Your task to perform on an android device: change the clock display to analog Image 0: 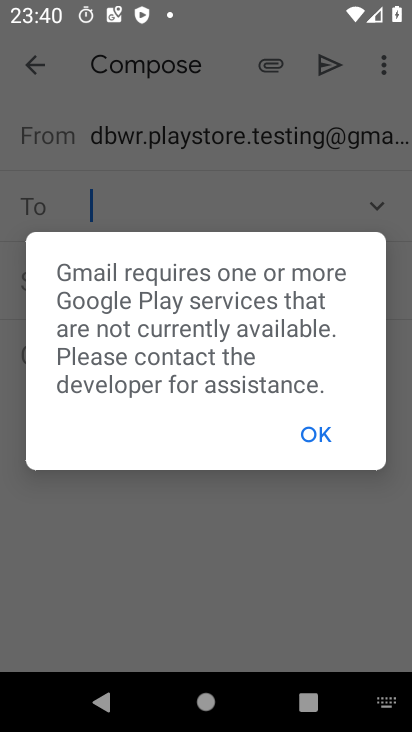
Step 0: press home button
Your task to perform on an android device: change the clock display to analog Image 1: 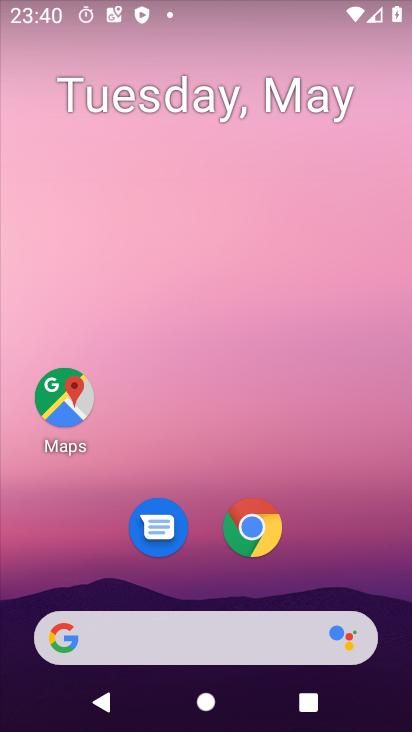
Step 1: drag from (224, 565) to (250, 231)
Your task to perform on an android device: change the clock display to analog Image 2: 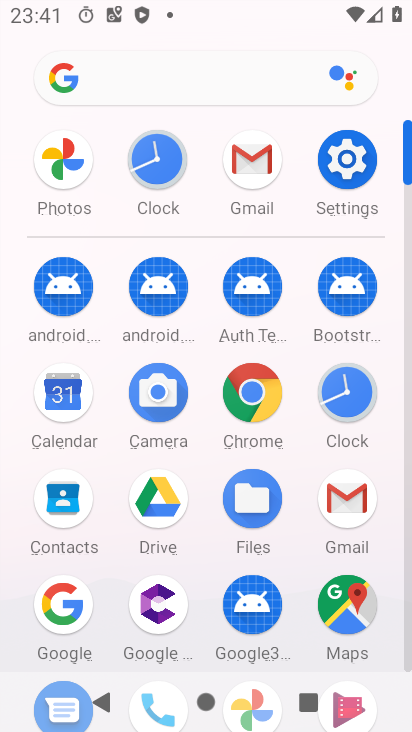
Step 2: drag from (199, 575) to (195, 193)
Your task to perform on an android device: change the clock display to analog Image 3: 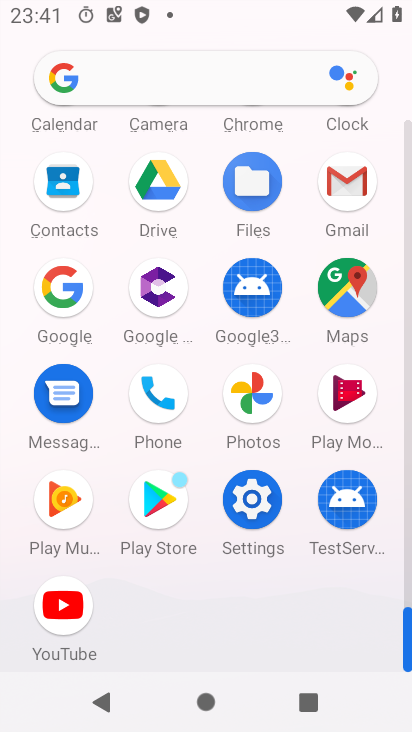
Step 3: drag from (206, 579) to (202, 327)
Your task to perform on an android device: change the clock display to analog Image 4: 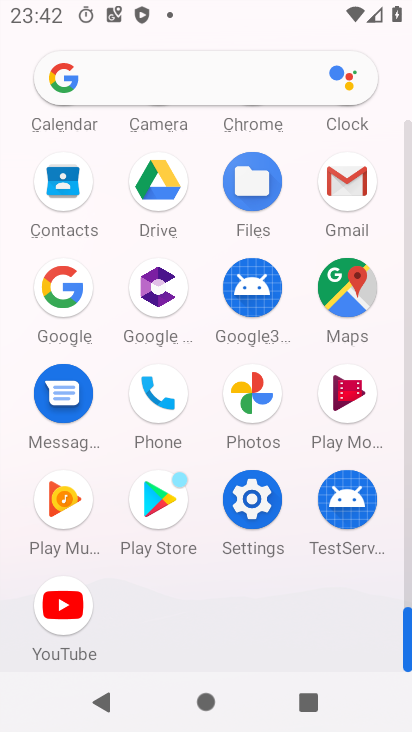
Step 4: drag from (220, 460) to (231, 234)
Your task to perform on an android device: change the clock display to analog Image 5: 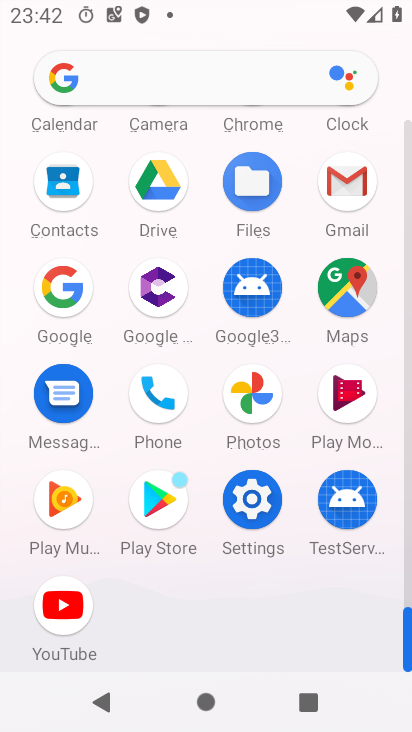
Step 5: drag from (213, 254) to (231, 621)
Your task to perform on an android device: change the clock display to analog Image 6: 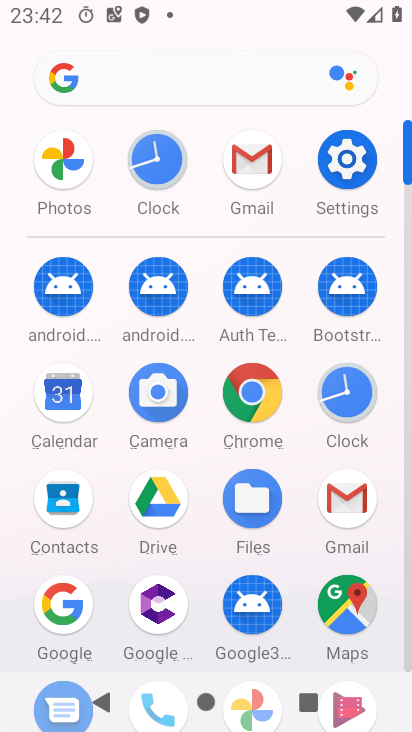
Step 6: drag from (199, 463) to (217, 322)
Your task to perform on an android device: change the clock display to analog Image 7: 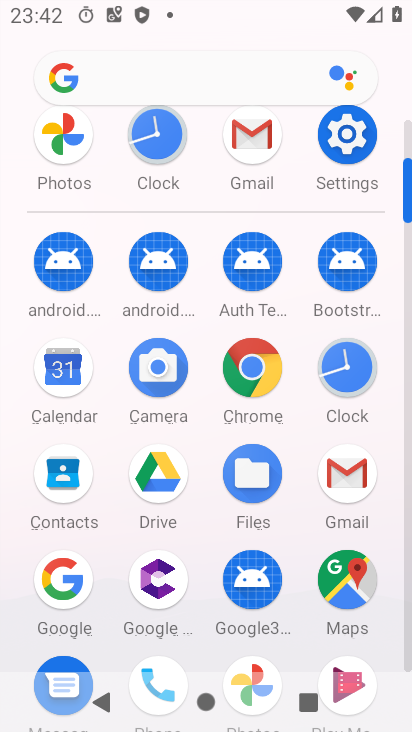
Step 7: click (343, 372)
Your task to perform on an android device: change the clock display to analog Image 8: 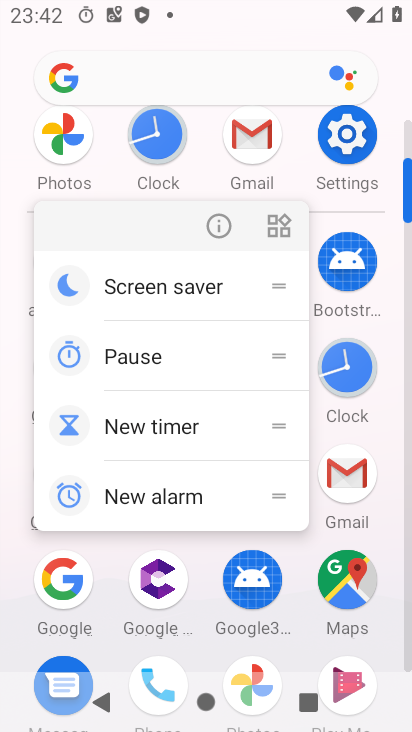
Step 8: click (217, 216)
Your task to perform on an android device: change the clock display to analog Image 9: 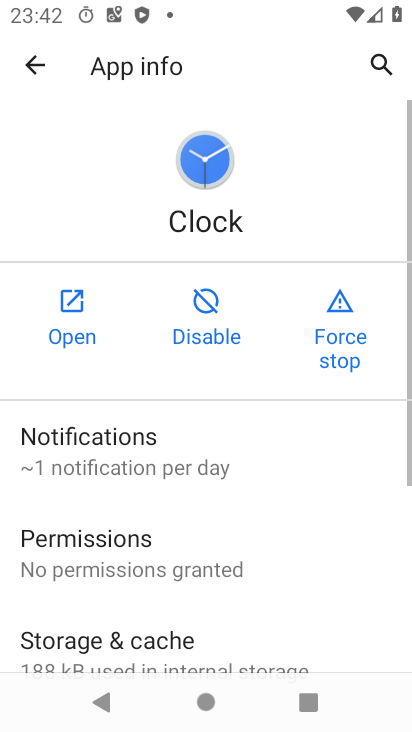
Step 9: click (70, 341)
Your task to perform on an android device: change the clock display to analog Image 10: 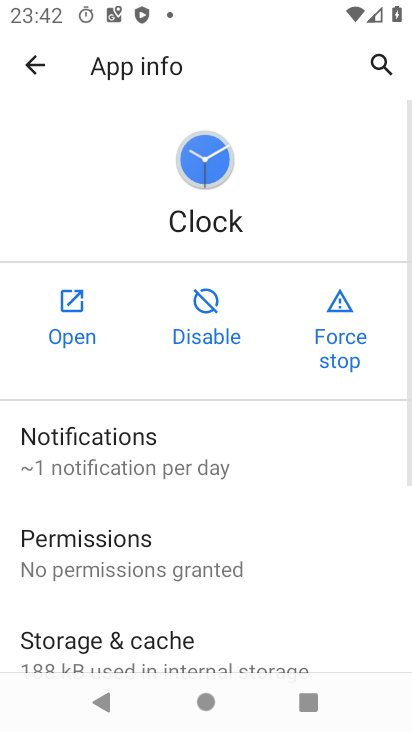
Step 10: click (70, 341)
Your task to perform on an android device: change the clock display to analog Image 11: 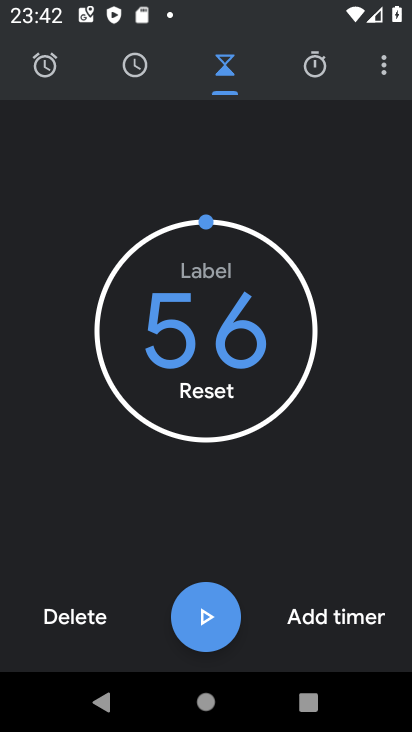
Step 11: click (386, 67)
Your task to perform on an android device: change the clock display to analog Image 12: 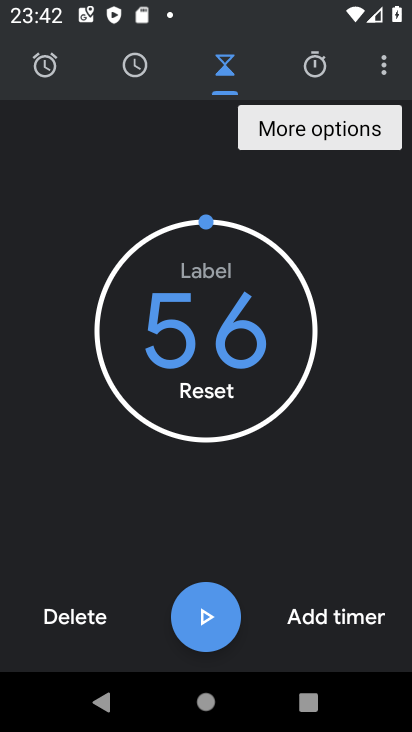
Step 12: click (385, 65)
Your task to perform on an android device: change the clock display to analog Image 13: 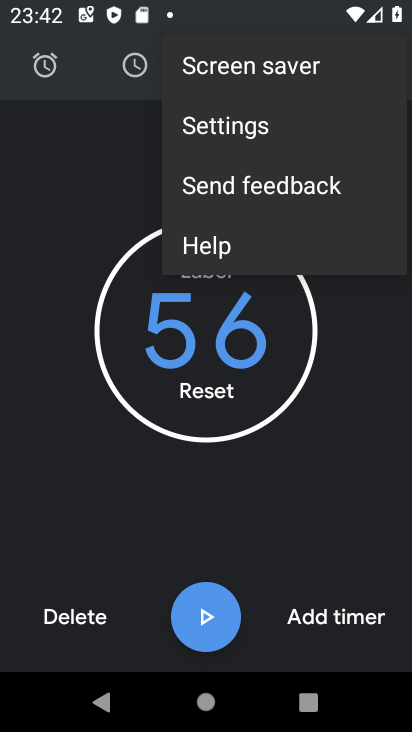
Step 13: click (386, 66)
Your task to perform on an android device: change the clock display to analog Image 14: 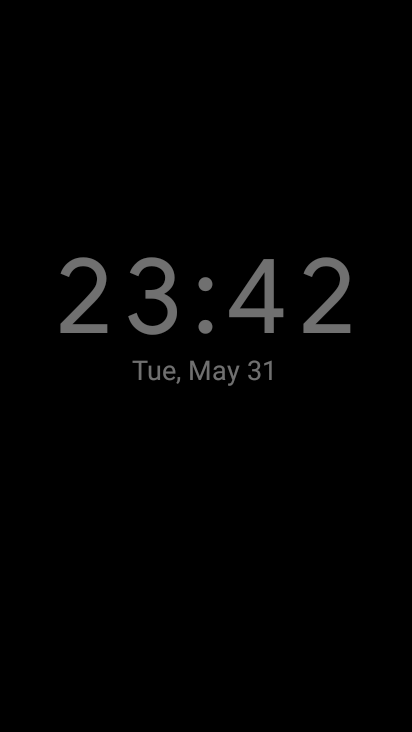
Step 14: click (242, 407)
Your task to perform on an android device: change the clock display to analog Image 15: 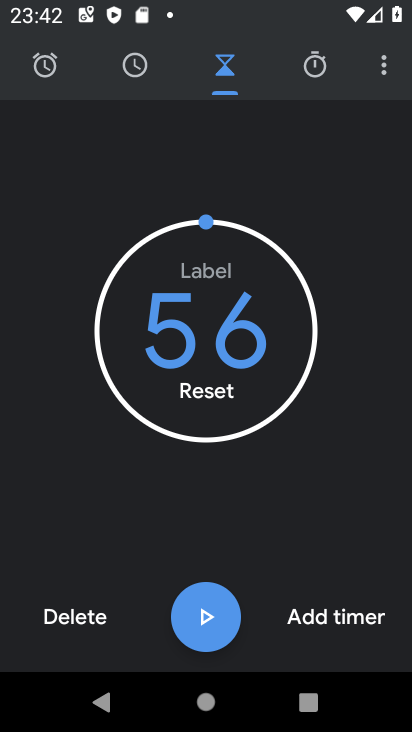
Step 15: click (384, 71)
Your task to perform on an android device: change the clock display to analog Image 16: 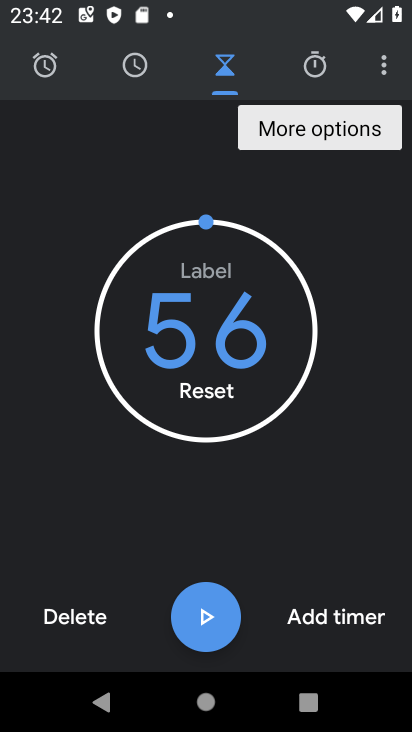
Step 16: click (386, 70)
Your task to perform on an android device: change the clock display to analog Image 17: 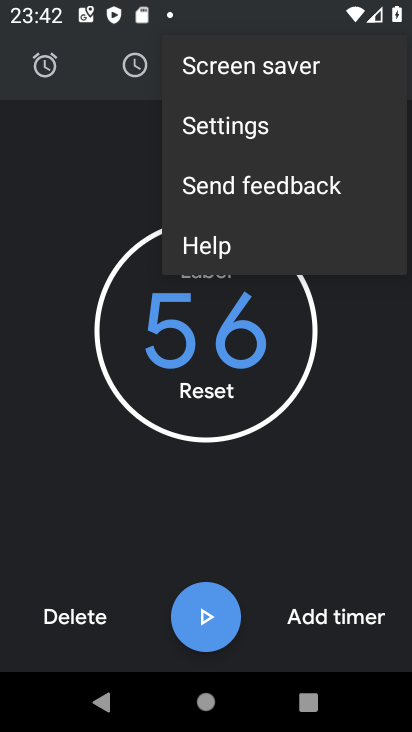
Step 17: click (277, 119)
Your task to perform on an android device: change the clock display to analog Image 18: 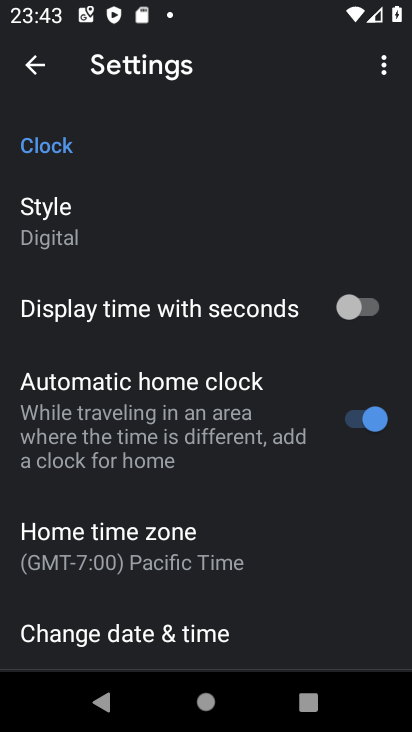
Step 18: click (116, 216)
Your task to perform on an android device: change the clock display to analog Image 19: 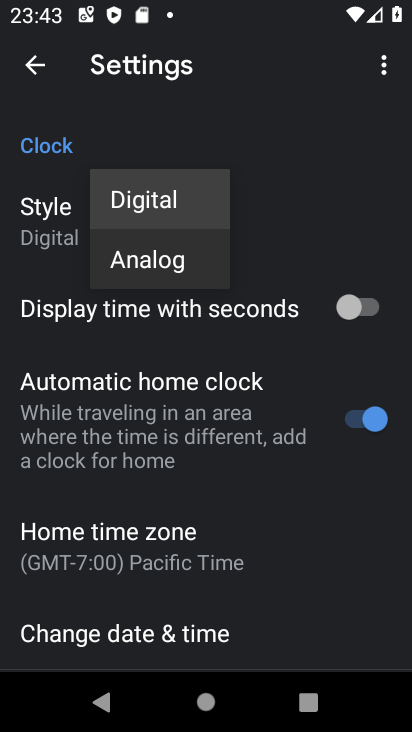
Step 19: click (180, 266)
Your task to perform on an android device: change the clock display to analog Image 20: 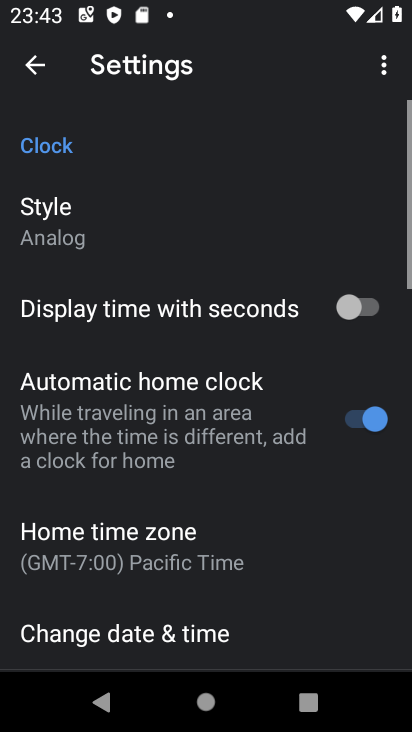
Step 20: task complete